Your task to perform on an android device: turn on location history Image 0: 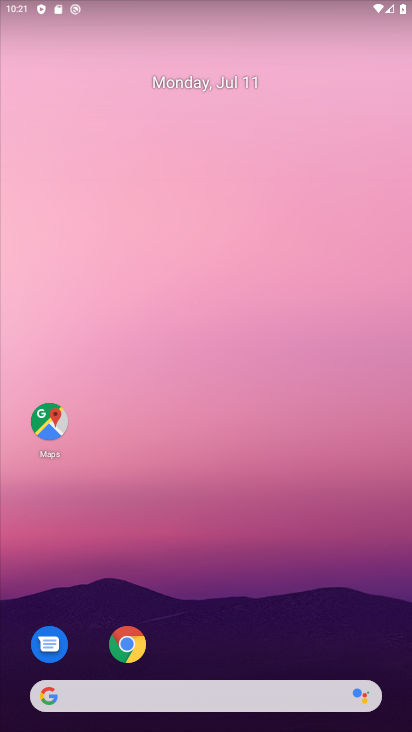
Step 0: drag from (215, 662) to (309, 194)
Your task to perform on an android device: turn on location history Image 1: 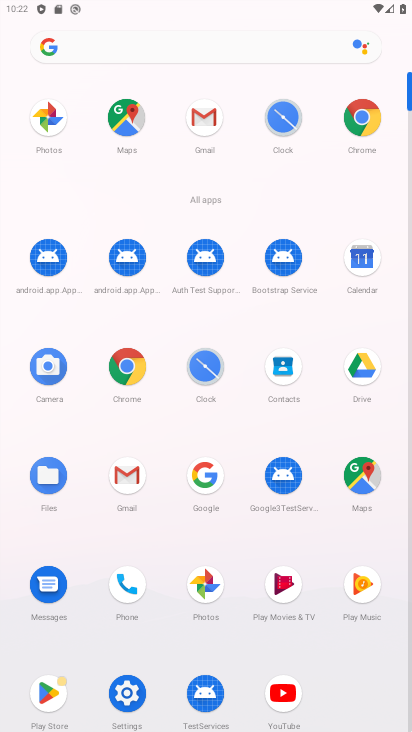
Step 1: click (121, 690)
Your task to perform on an android device: turn on location history Image 2: 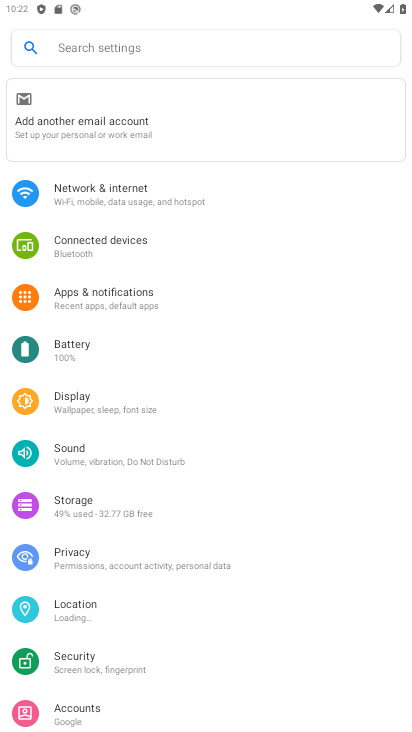
Step 2: click (107, 611)
Your task to perform on an android device: turn on location history Image 3: 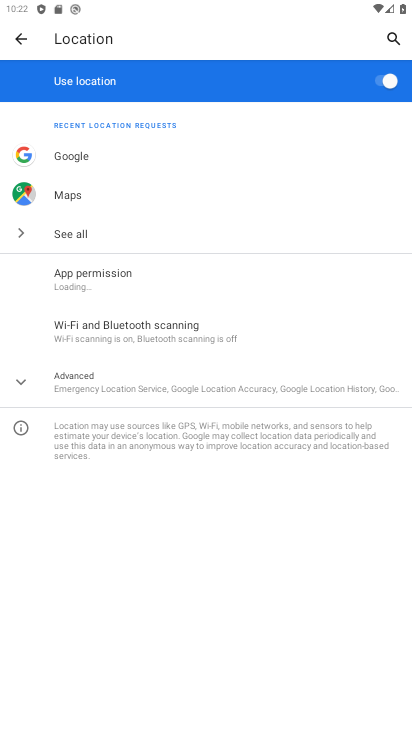
Step 3: click (129, 389)
Your task to perform on an android device: turn on location history Image 4: 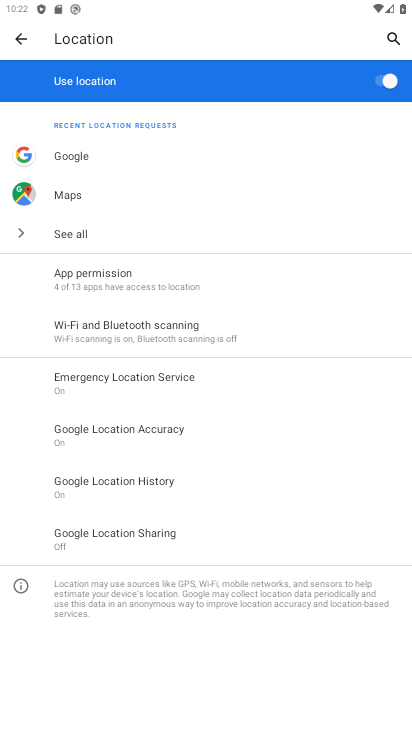
Step 4: click (152, 486)
Your task to perform on an android device: turn on location history Image 5: 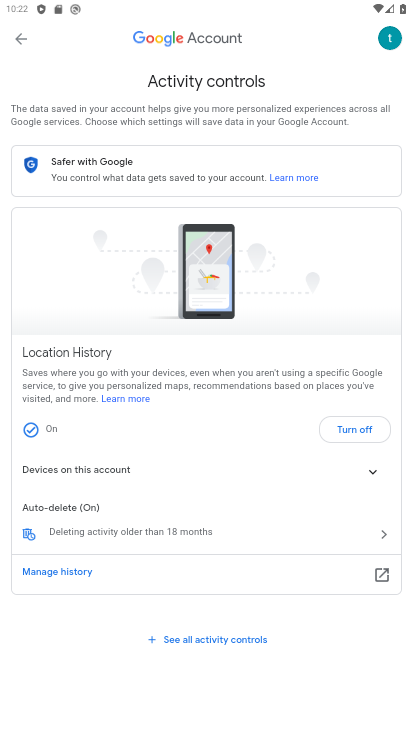
Step 5: task complete